Your task to perform on an android device: change notification settings in the gmail app Image 0: 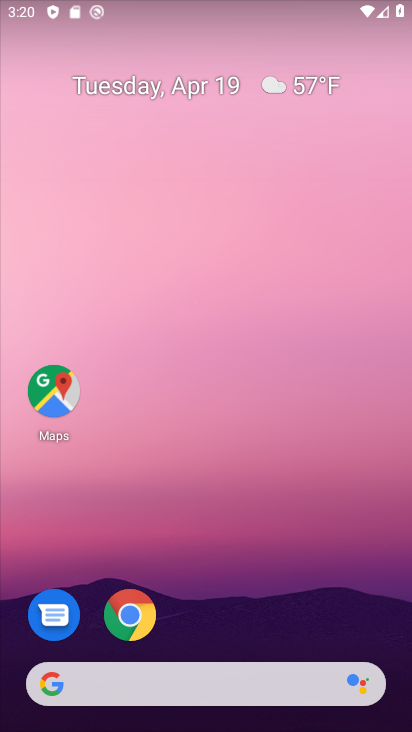
Step 0: drag from (234, 595) to (218, 168)
Your task to perform on an android device: change notification settings in the gmail app Image 1: 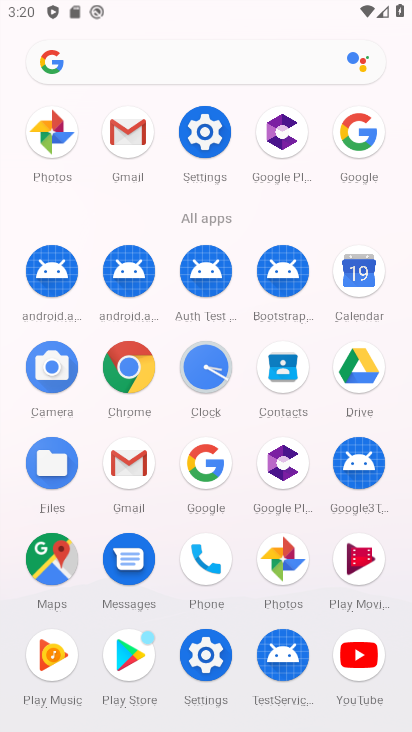
Step 1: click (136, 465)
Your task to perform on an android device: change notification settings in the gmail app Image 2: 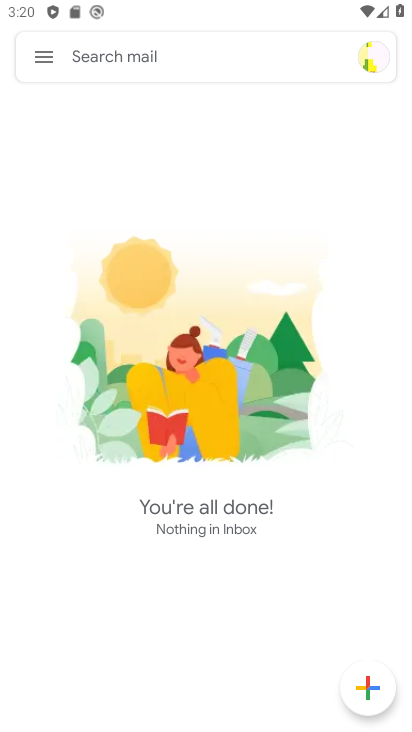
Step 2: click (41, 58)
Your task to perform on an android device: change notification settings in the gmail app Image 3: 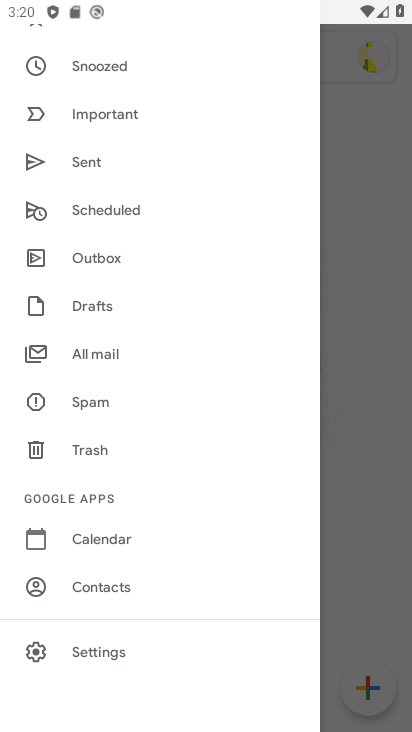
Step 3: click (112, 645)
Your task to perform on an android device: change notification settings in the gmail app Image 4: 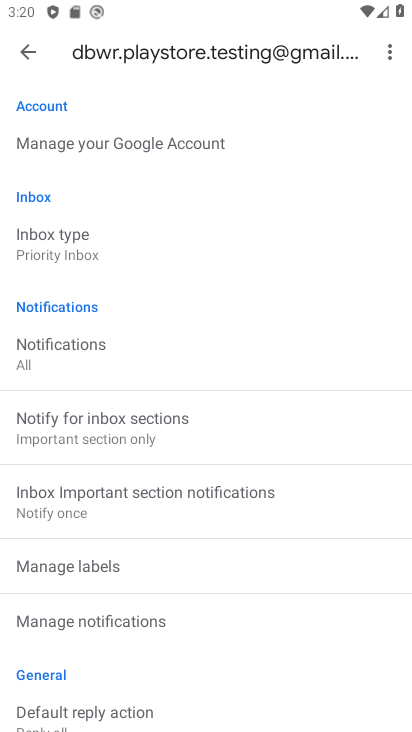
Step 4: click (149, 624)
Your task to perform on an android device: change notification settings in the gmail app Image 5: 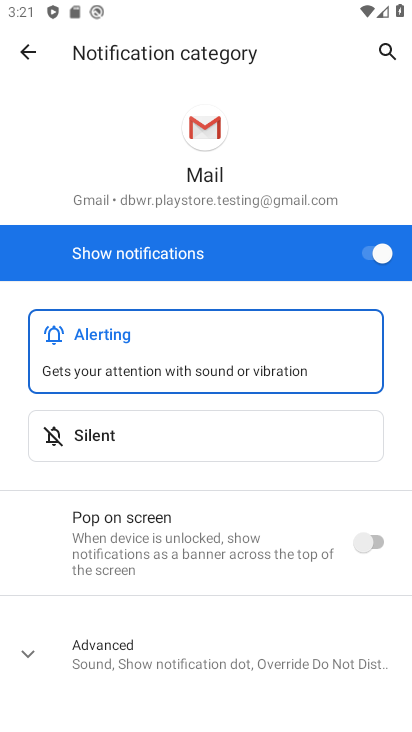
Step 5: drag from (220, 636) to (229, 265)
Your task to perform on an android device: change notification settings in the gmail app Image 6: 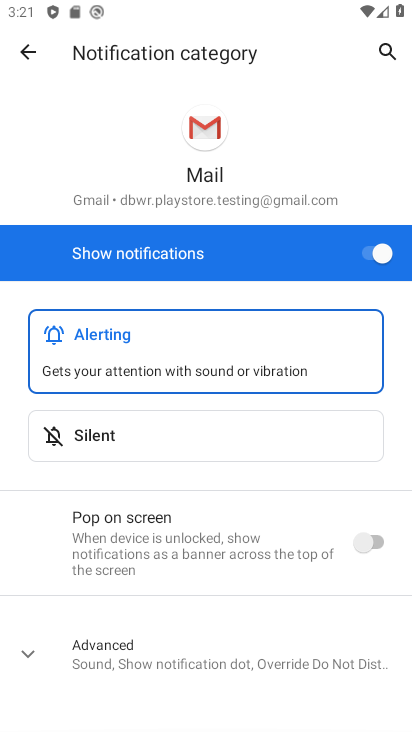
Step 6: click (198, 664)
Your task to perform on an android device: change notification settings in the gmail app Image 7: 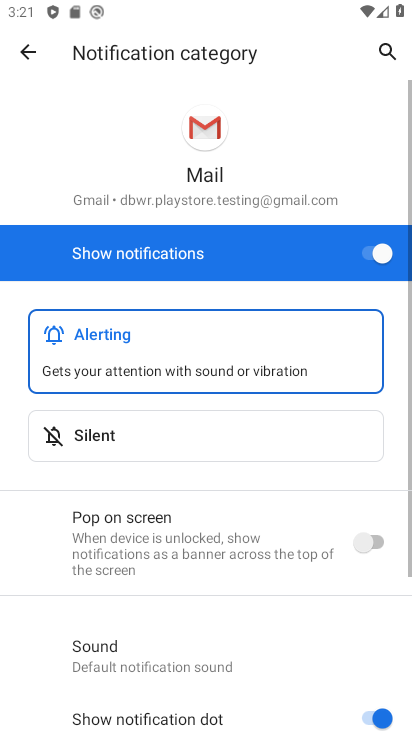
Step 7: task complete